Your task to perform on an android device: Go to Maps Image 0: 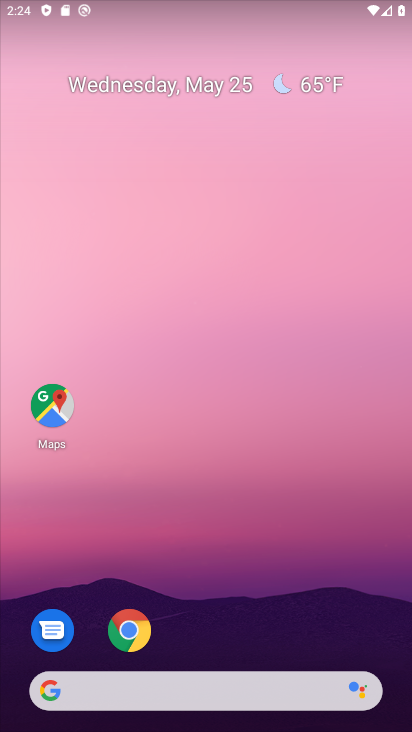
Step 0: press home button
Your task to perform on an android device: Go to Maps Image 1: 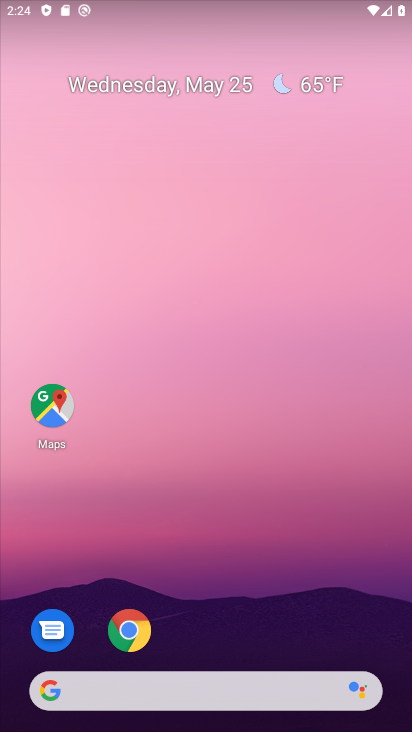
Step 1: click (52, 396)
Your task to perform on an android device: Go to Maps Image 2: 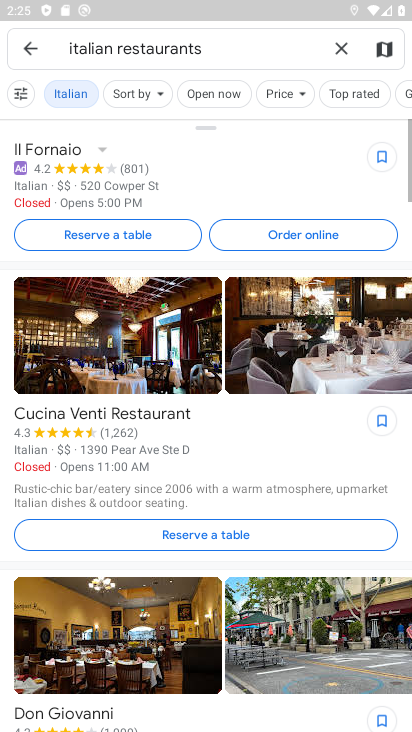
Step 2: click (337, 47)
Your task to perform on an android device: Go to Maps Image 3: 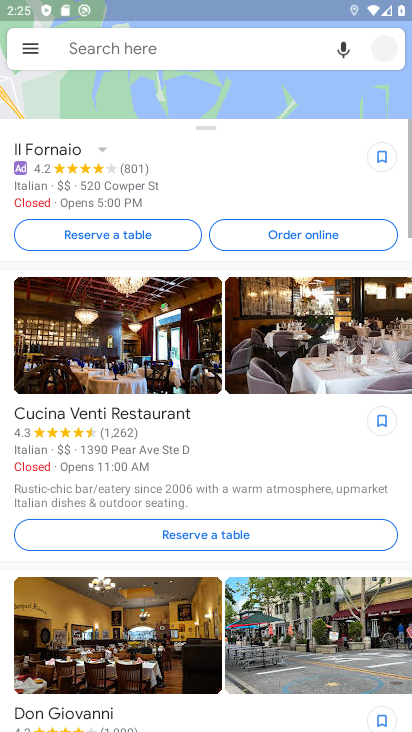
Step 3: click (31, 51)
Your task to perform on an android device: Go to Maps Image 4: 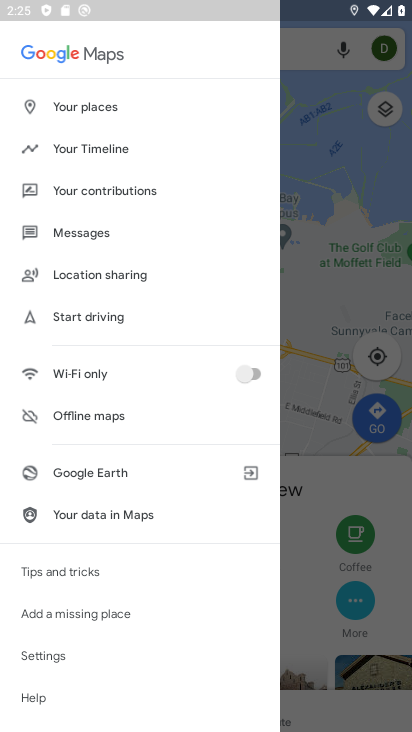
Step 4: drag from (102, 661) to (98, 128)
Your task to perform on an android device: Go to Maps Image 5: 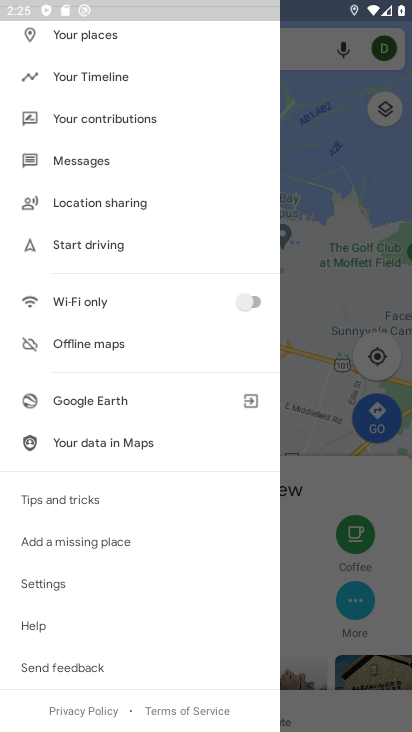
Step 5: click (306, 274)
Your task to perform on an android device: Go to Maps Image 6: 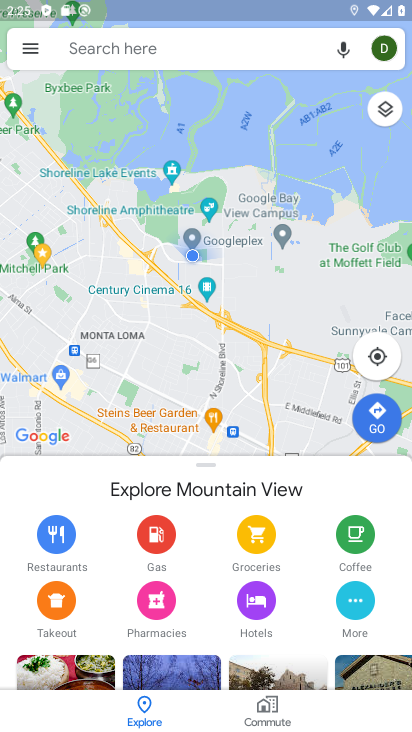
Step 6: task complete